Your task to perform on an android device: Search for seafood restaurants on Google Maps Image 0: 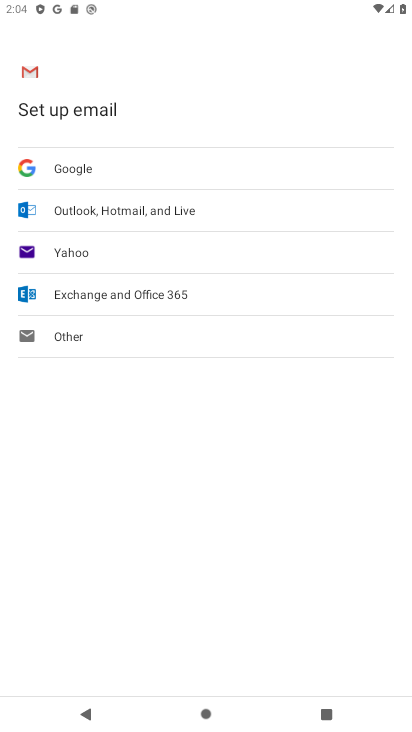
Step 0: press home button
Your task to perform on an android device: Search for seafood restaurants on Google Maps Image 1: 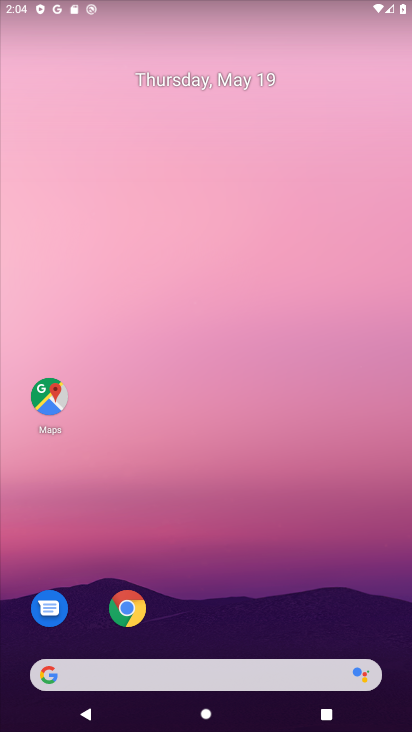
Step 1: click (39, 395)
Your task to perform on an android device: Search for seafood restaurants on Google Maps Image 2: 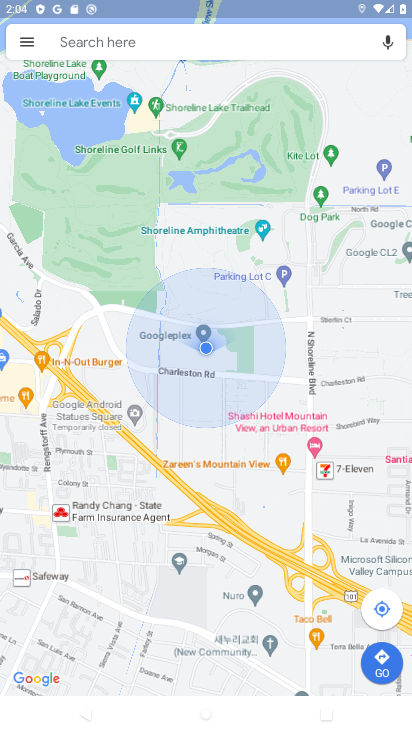
Step 2: click (211, 42)
Your task to perform on an android device: Search for seafood restaurants on Google Maps Image 3: 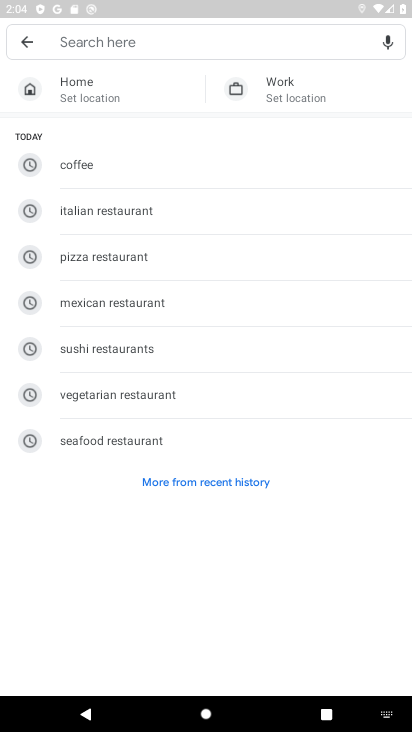
Step 3: click (127, 439)
Your task to perform on an android device: Search for seafood restaurants on Google Maps Image 4: 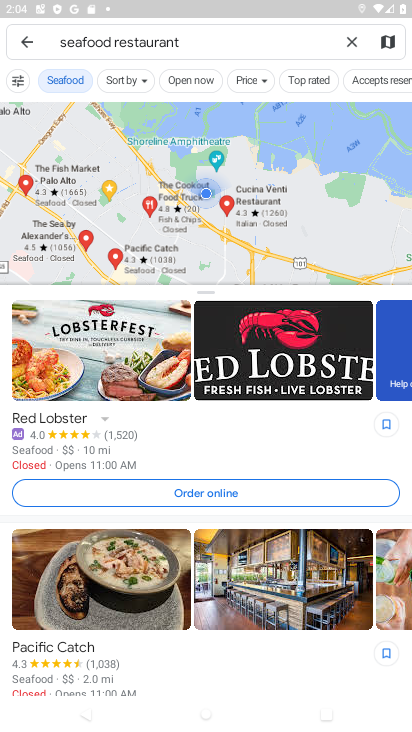
Step 4: task complete